Your task to perform on an android device: Empty the shopping cart on amazon.com. Add "energizer triple a" to the cart on amazon.com, then select checkout. Image 0: 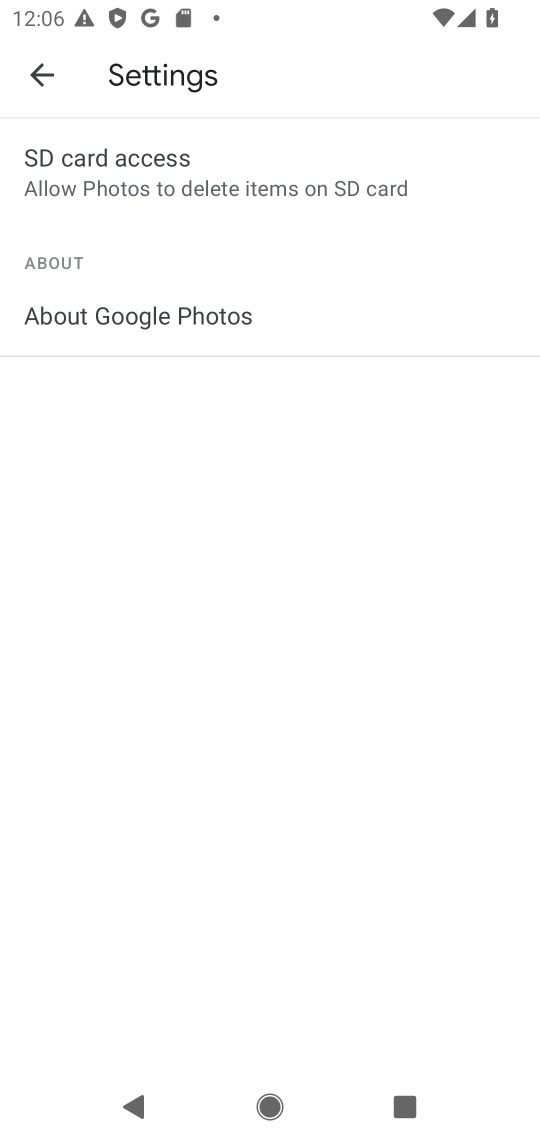
Step 0: press home button
Your task to perform on an android device: Empty the shopping cart on amazon.com. Add "energizer triple a" to the cart on amazon.com, then select checkout. Image 1: 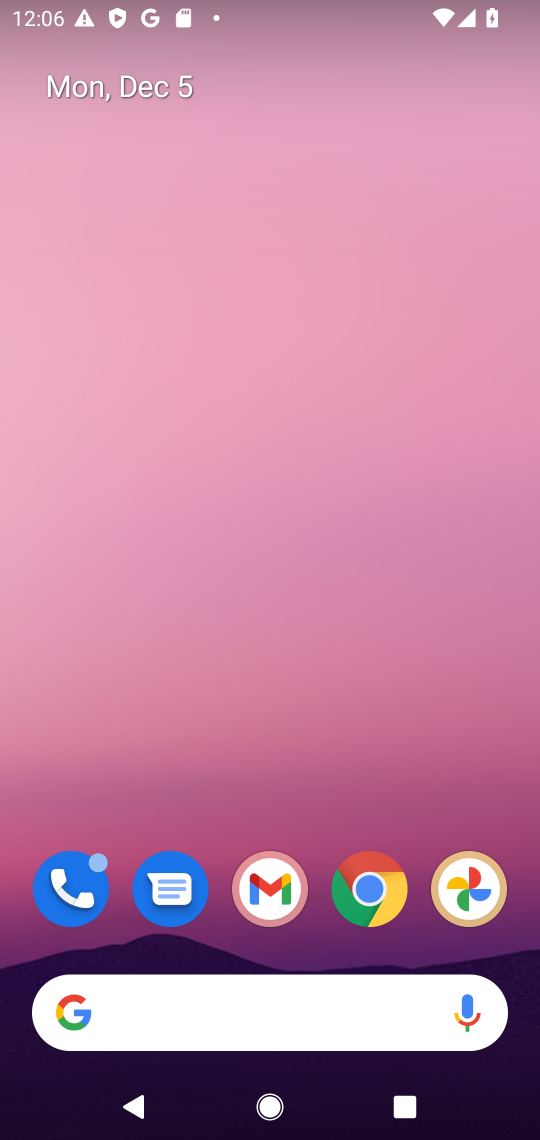
Step 1: click (384, 899)
Your task to perform on an android device: Empty the shopping cart on amazon.com. Add "energizer triple a" to the cart on amazon.com, then select checkout. Image 2: 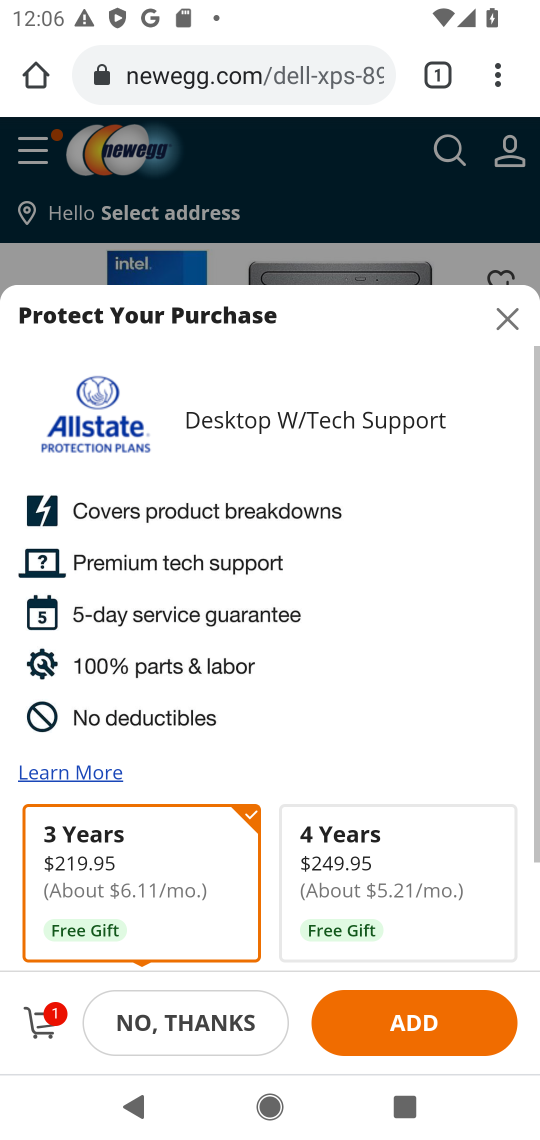
Step 2: click (317, 85)
Your task to perform on an android device: Empty the shopping cart on amazon.com. Add "energizer triple a" to the cart on amazon.com, then select checkout. Image 3: 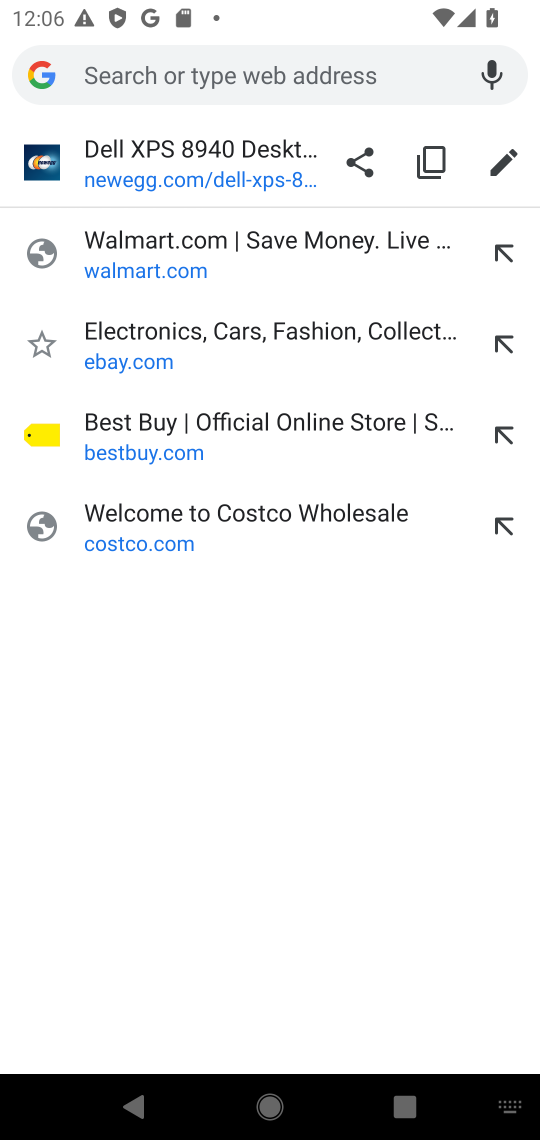
Step 3: type "amazon.com"
Your task to perform on an android device: Empty the shopping cart on amazon.com. Add "energizer triple a" to the cart on amazon.com, then select checkout. Image 4: 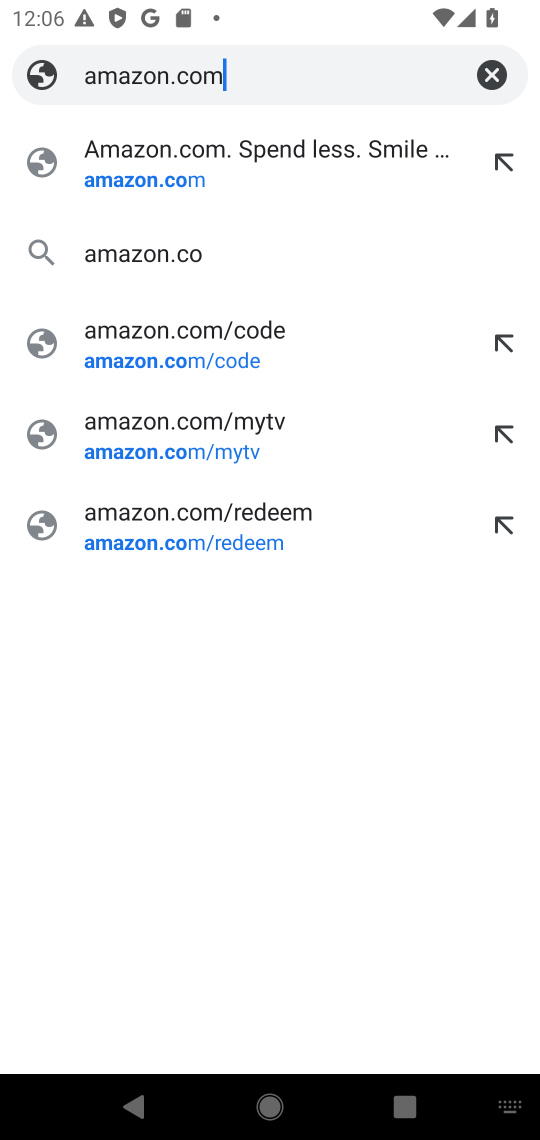
Step 4: press enter
Your task to perform on an android device: Empty the shopping cart on amazon.com. Add "energizer triple a" to the cart on amazon.com, then select checkout. Image 5: 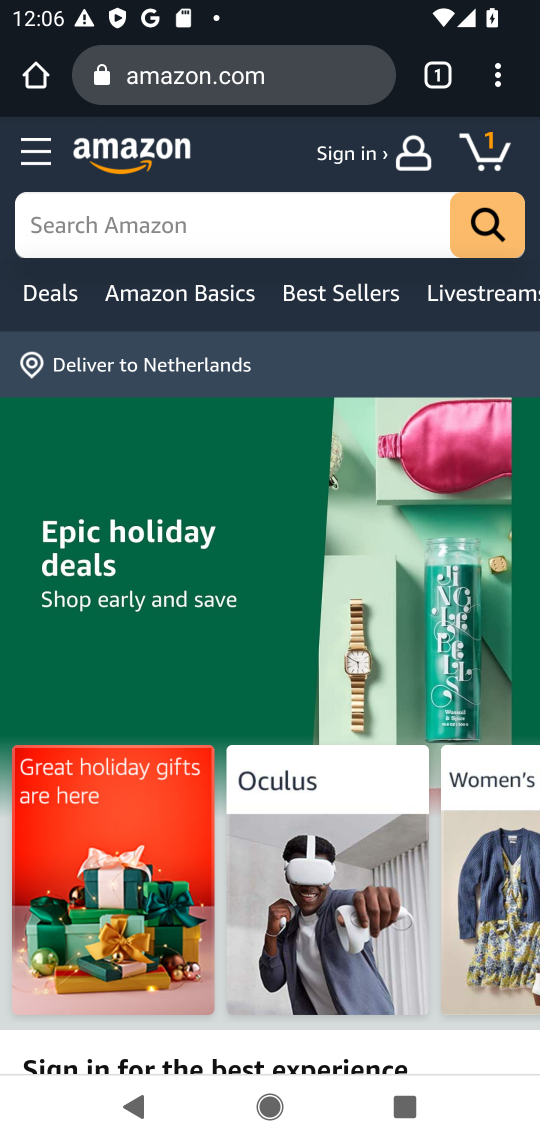
Step 5: click (484, 150)
Your task to perform on an android device: Empty the shopping cart on amazon.com. Add "energizer triple a" to the cart on amazon.com, then select checkout. Image 6: 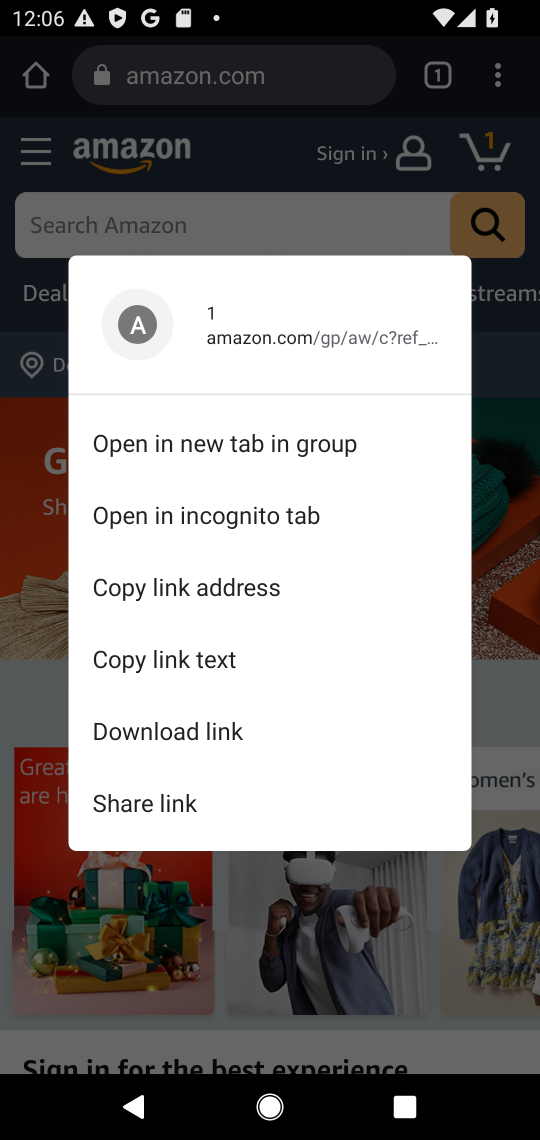
Step 6: click (478, 163)
Your task to perform on an android device: Empty the shopping cart on amazon.com. Add "energizer triple a" to the cart on amazon.com, then select checkout. Image 7: 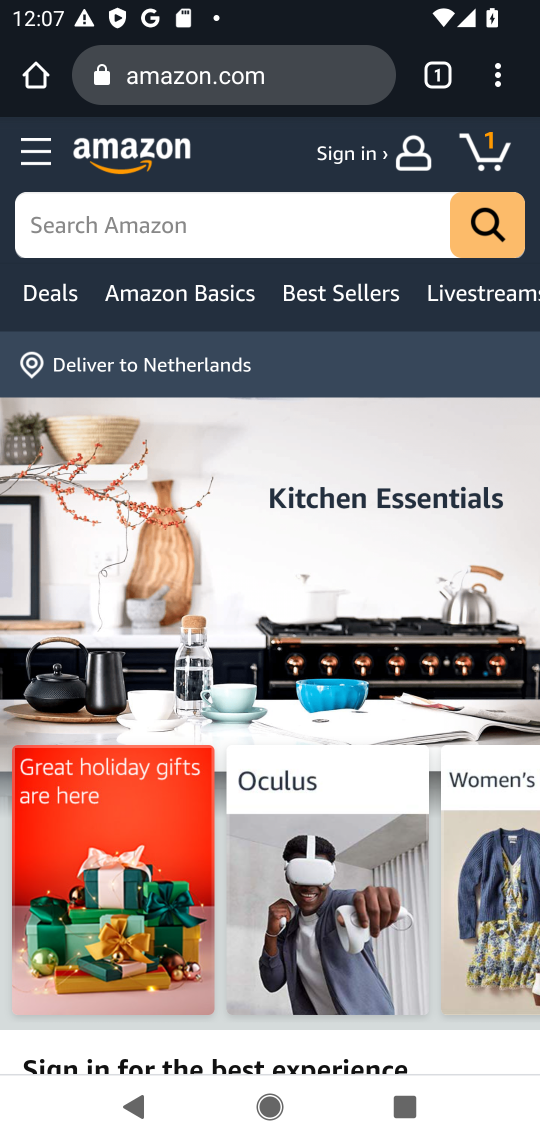
Step 7: click (490, 151)
Your task to perform on an android device: Empty the shopping cart on amazon.com. Add "energizer triple a" to the cart on amazon.com, then select checkout. Image 8: 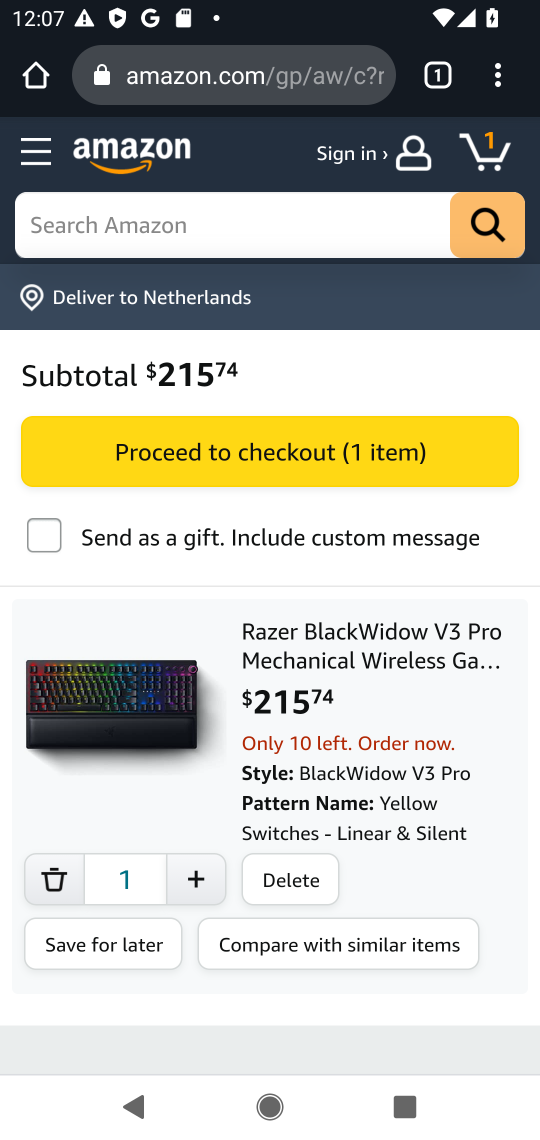
Step 8: click (53, 880)
Your task to perform on an android device: Empty the shopping cart on amazon.com. Add "energizer triple a" to the cart on amazon.com, then select checkout. Image 9: 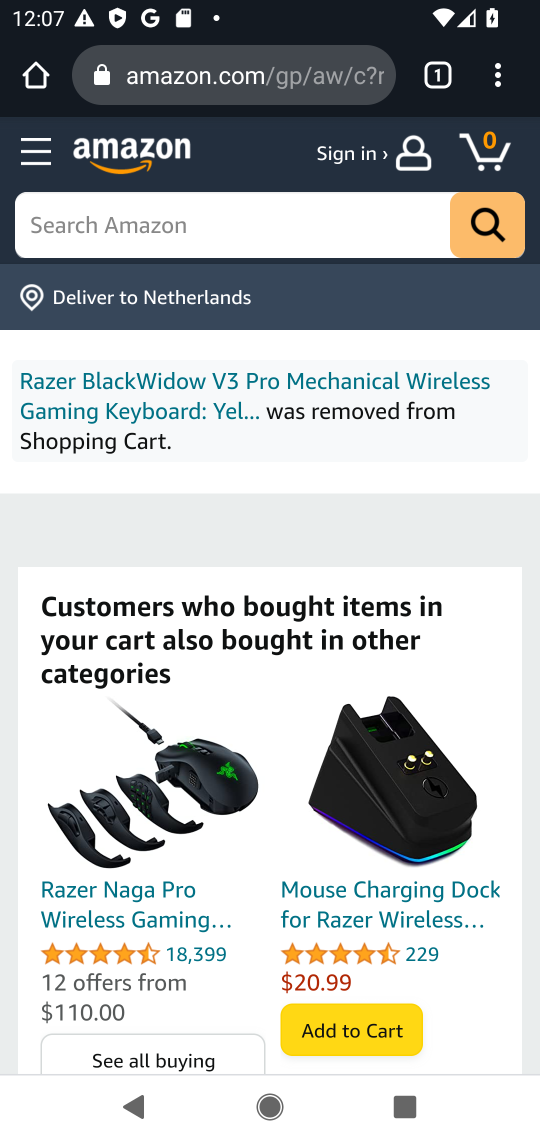
Step 9: click (310, 218)
Your task to perform on an android device: Empty the shopping cart on amazon.com. Add "energizer triple a" to the cart on amazon.com, then select checkout. Image 10: 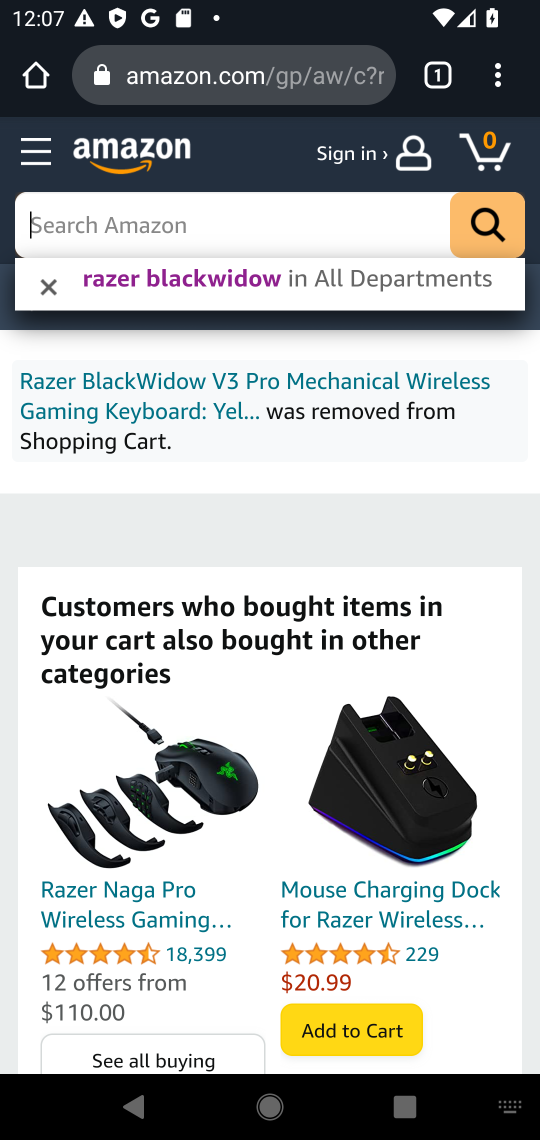
Step 10: type "energizer triple a"
Your task to perform on an android device: Empty the shopping cart on amazon.com. Add "energizer triple a" to the cart on amazon.com, then select checkout. Image 11: 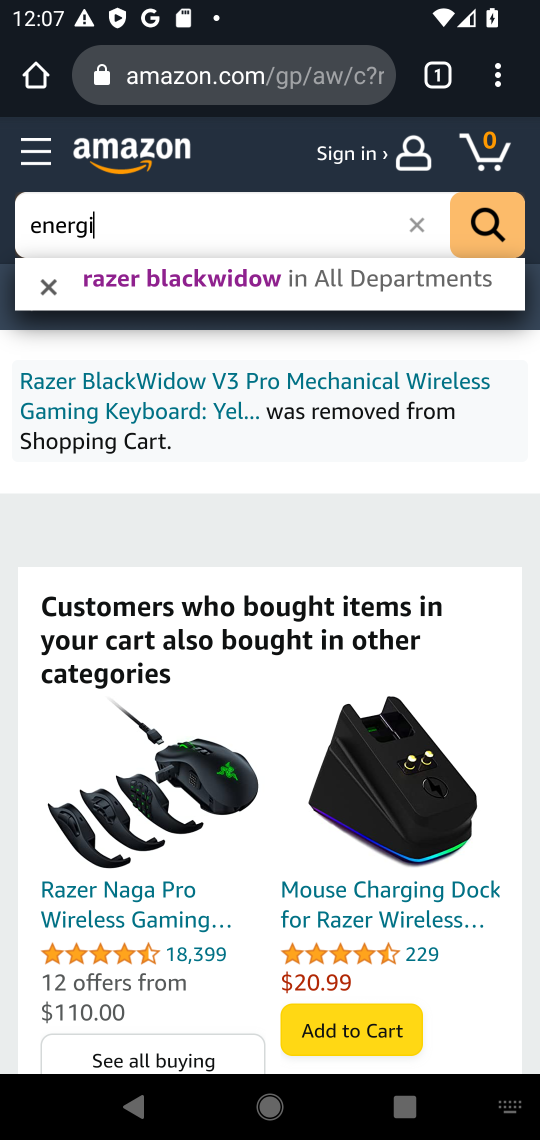
Step 11: press enter
Your task to perform on an android device: Empty the shopping cart on amazon.com. Add "energizer triple a" to the cart on amazon.com, then select checkout. Image 12: 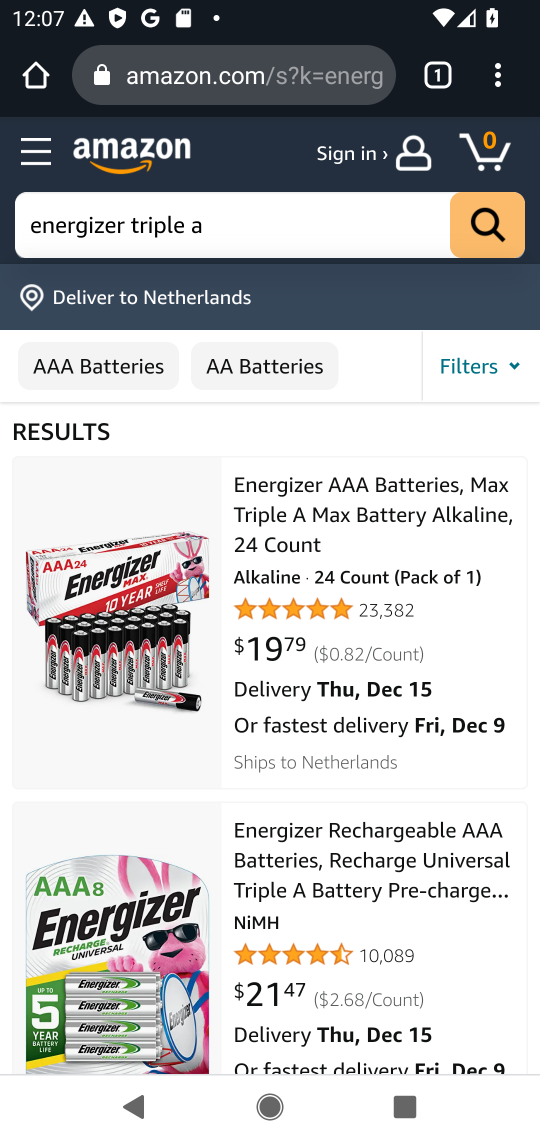
Step 12: click (165, 595)
Your task to perform on an android device: Empty the shopping cart on amazon.com. Add "energizer triple a" to the cart on amazon.com, then select checkout. Image 13: 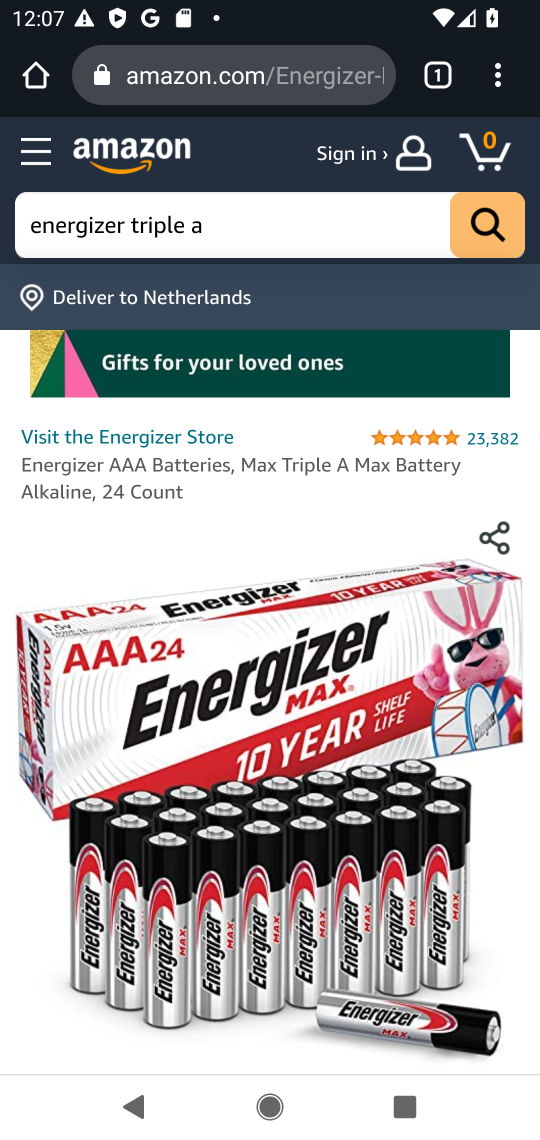
Step 13: drag from (343, 908) to (385, 440)
Your task to perform on an android device: Empty the shopping cart on amazon.com. Add "energizer triple a" to the cart on amazon.com, then select checkout. Image 14: 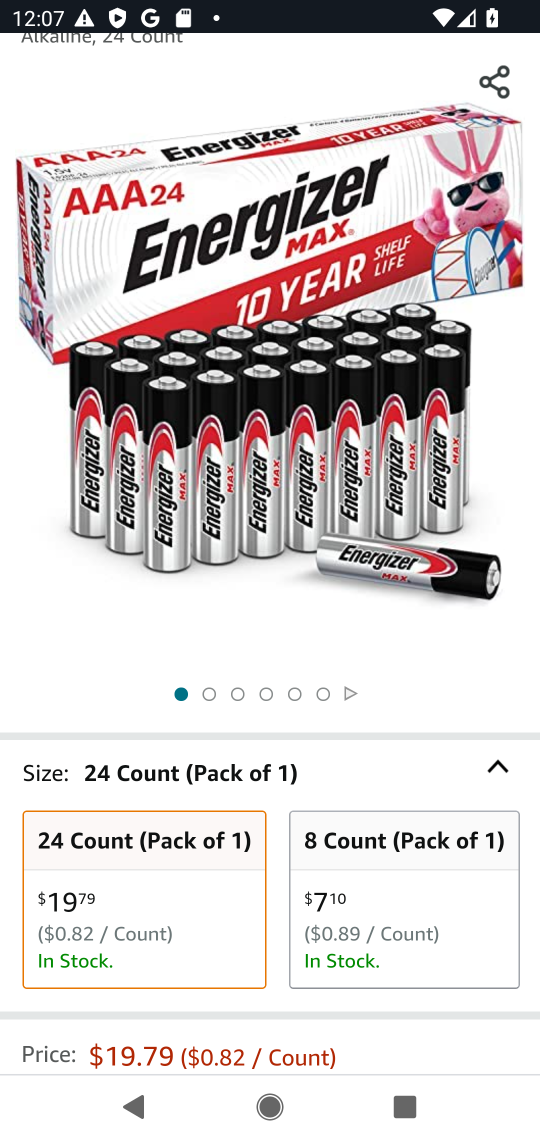
Step 14: drag from (386, 531) to (456, 73)
Your task to perform on an android device: Empty the shopping cart on amazon.com. Add "energizer triple a" to the cart on amazon.com, then select checkout. Image 15: 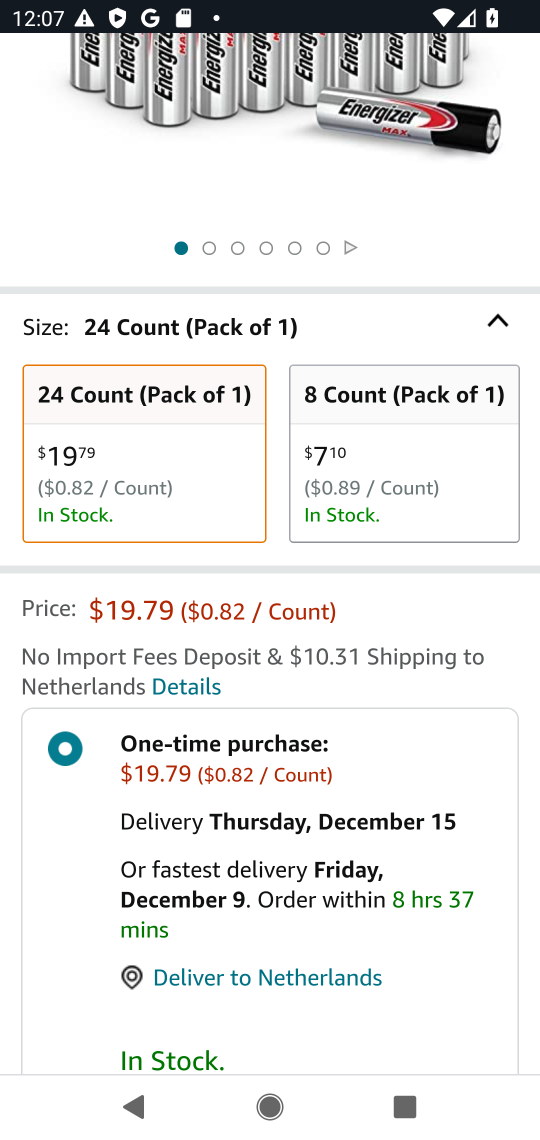
Step 15: drag from (444, 941) to (419, 246)
Your task to perform on an android device: Empty the shopping cart on amazon.com. Add "energizer triple a" to the cart on amazon.com, then select checkout. Image 16: 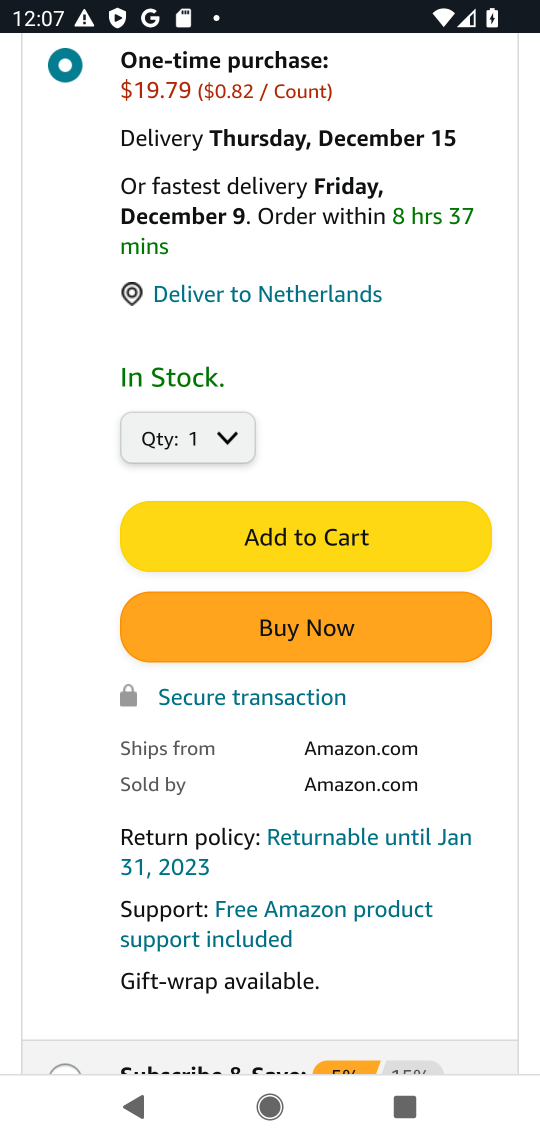
Step 16: click (365, 531)
Your task to perform on an android device: Empty the shopping cart on amazon.com. Add "energizer triple a" to the cart on amazon.com, then select checkout. Image 17: 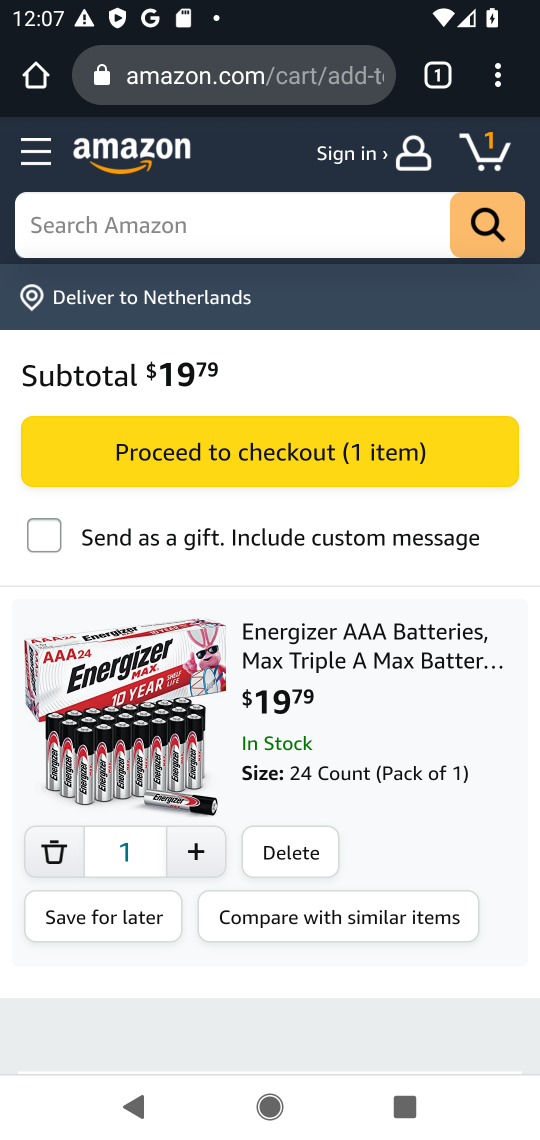
Step 17: click (265, 449)
Your task to perform on an android device: Empty the shopping cart on amazon.com. Add "energizer triple a" to the cart on amazon.com, then select checkout. Image 18: 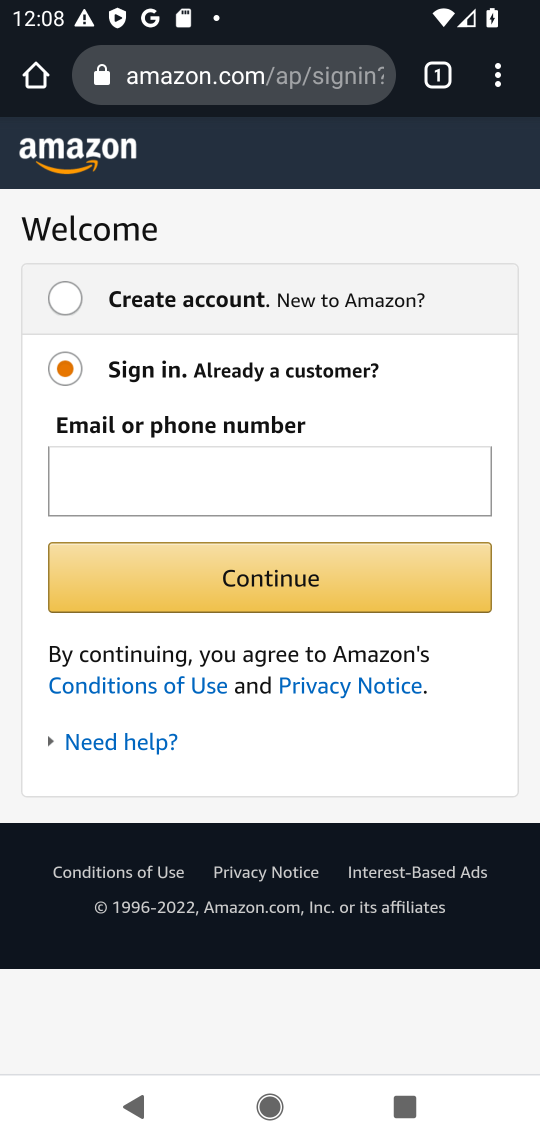
Step 18: task complete